Your task to perform on an android device: Set the phone to "Do not disturb". Image 0: 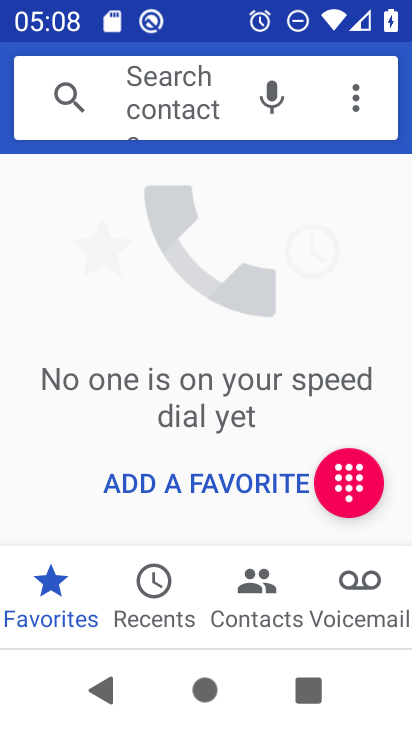
Step 0: drag from (233, 11) to (195, 345)
Your task to perform on an android device: Set the phone to "Do not disturb". Image 1: 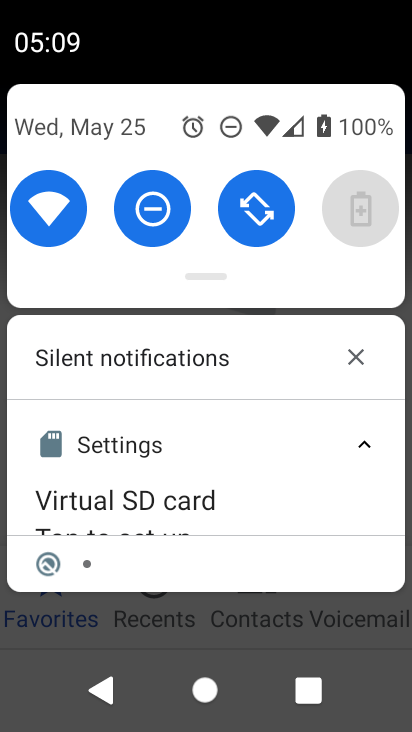
Step 1: task complete